Your task to perform on an android device: toggle show notifications on the lock screen Image 0: 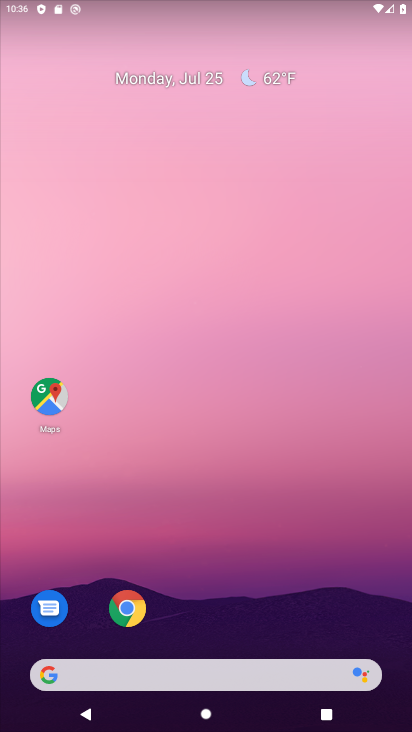
Step 0: drag from (209, 660) to (195, 171)
Your task to perform on an android device: toggle show notifications on the lock screen Image 1: 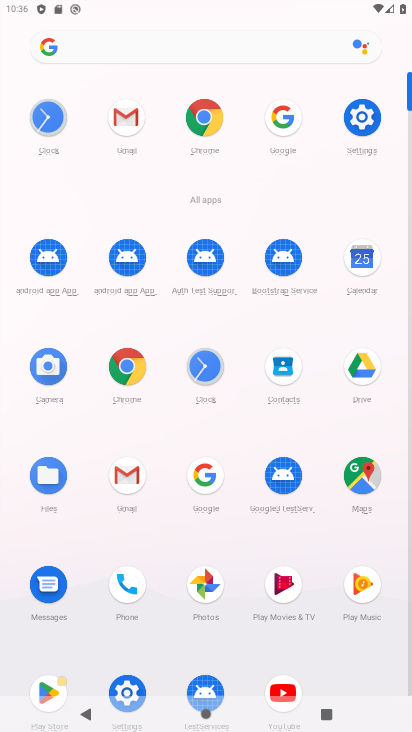
Step 1: click (344, 122)
Your task to perform on an android device: toggle show notifications on the lock screen Image 2: 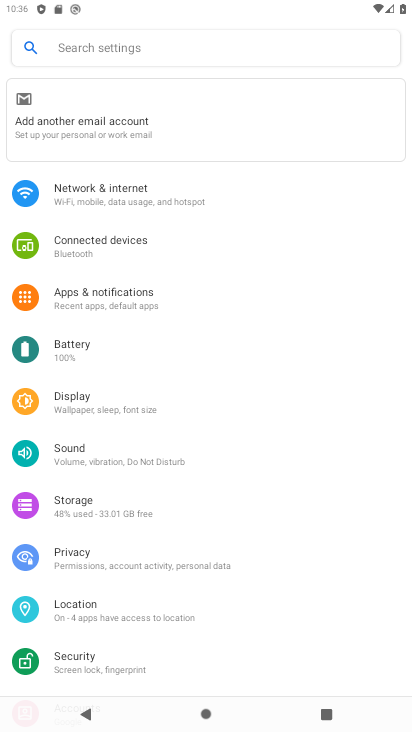
Step 2: click (57, 551)
Your task to perform on an android device: toggle show notifications on the lock screen Image 3: 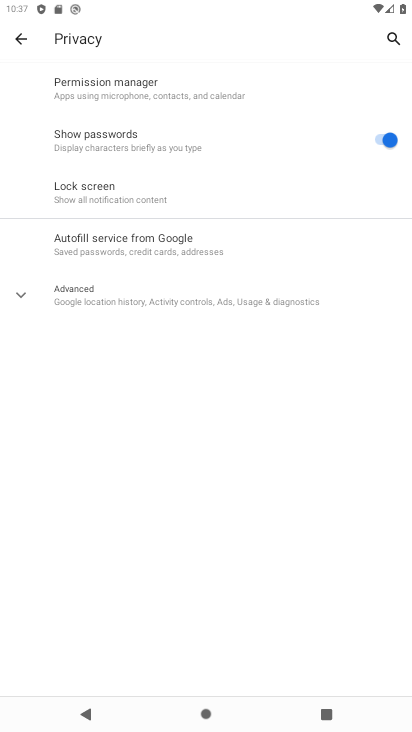
Step 3: click (102, 196)
Your task to perform on an android device: toggle show notifications on the lock screen Image 4: 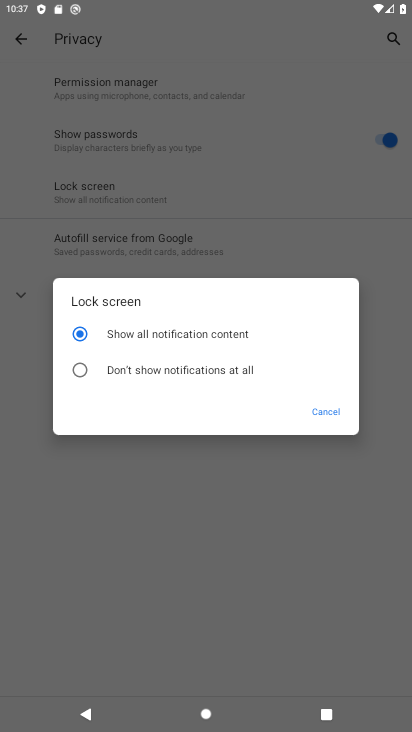
Step 4: click (101, 374)
Your task to perform on an android device: toggle show notifications on the lock screen Image 5: 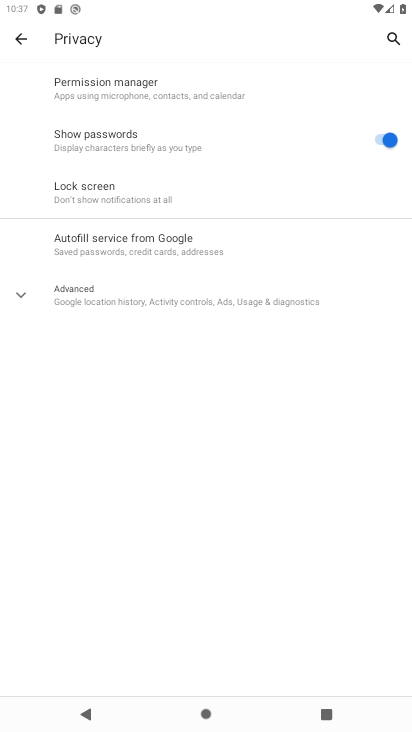
Step 5: task complete